Your task to perform on an android device: Search for hotels in Paris Image 0: 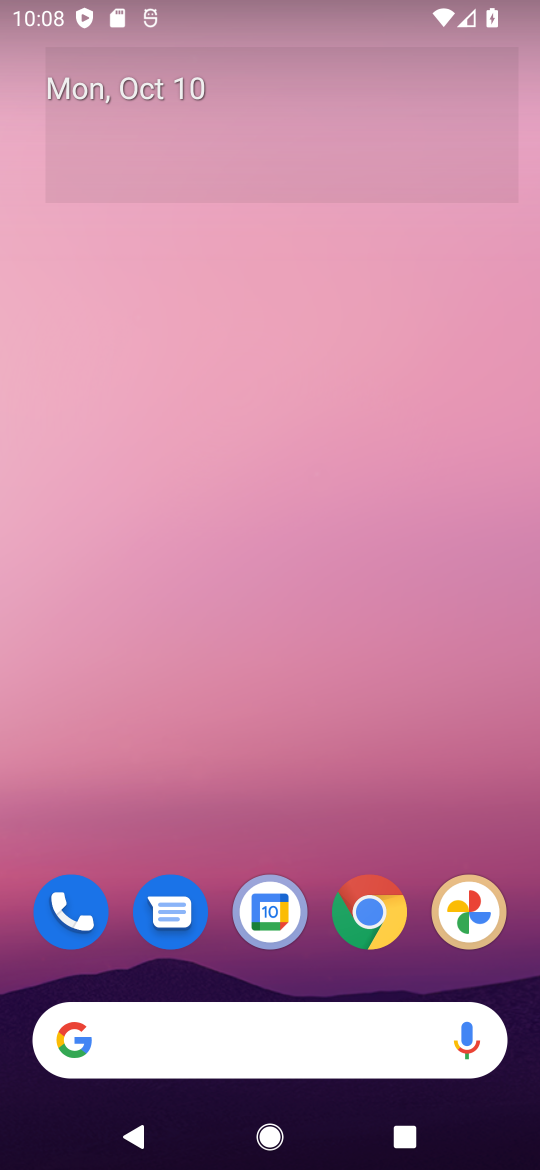
Step 0: click (365, 914)
Your task to perform on an android device: Search for hotels in Paris Image 1: 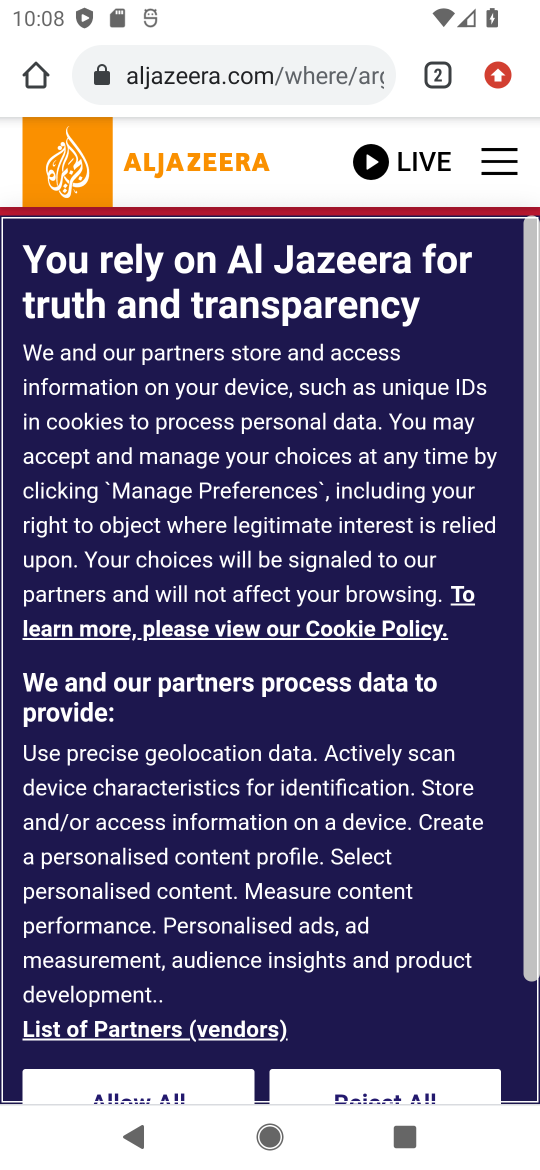
Step 1: click (296, 71)
Your task to perform on an android device: Search for hotels in Paris Image 2: 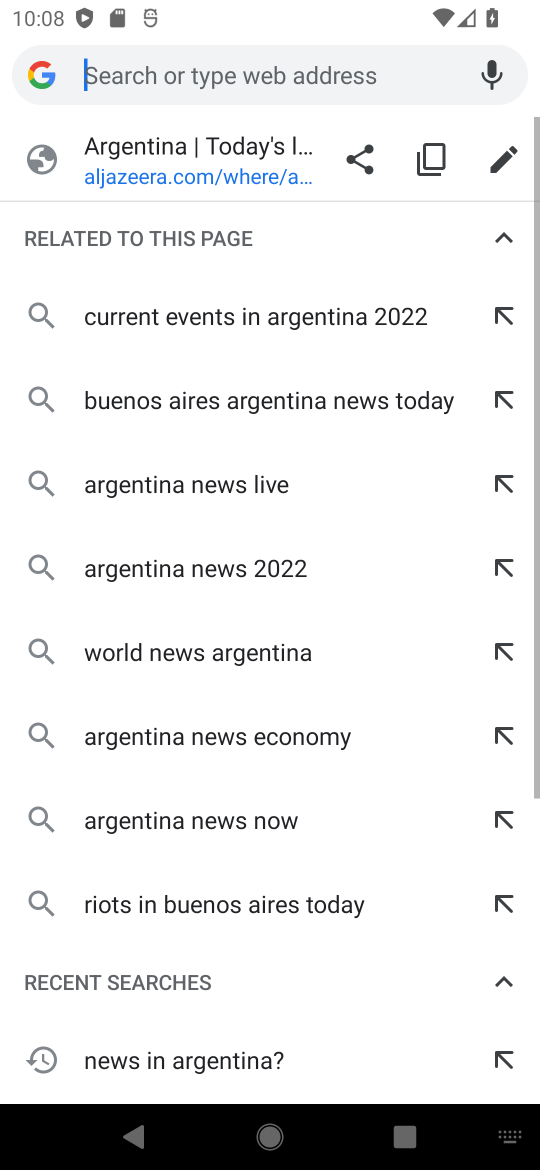
Step 2: click (364, 74)
Your task to perform on an android device: Search for hotels in Paris Image 3: 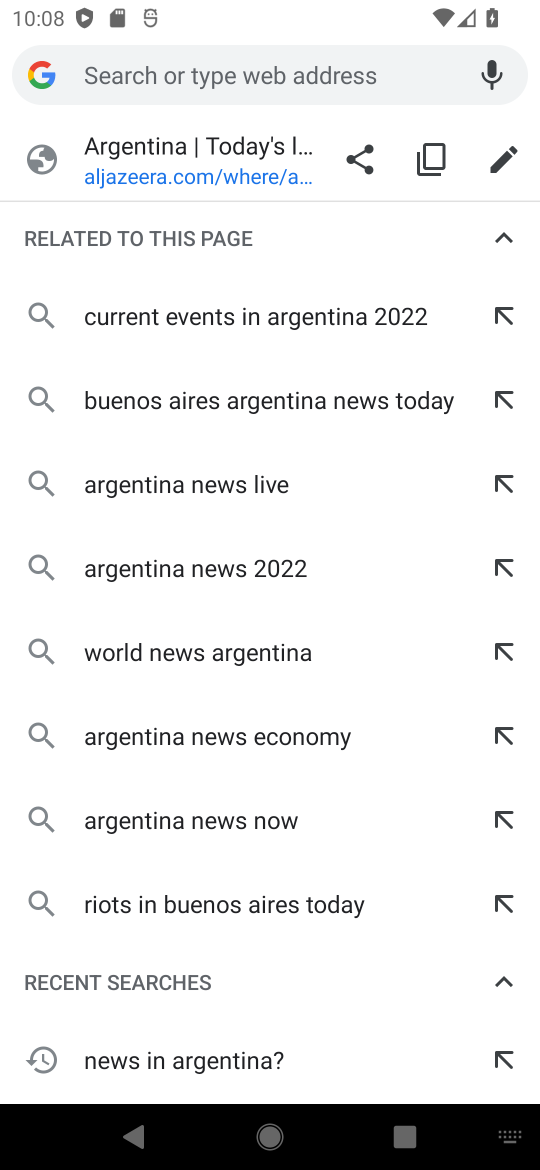
Step 3: type "hotels in paris ?"
Your task to perform on an android device: Search for hotels in Paris Image 4: 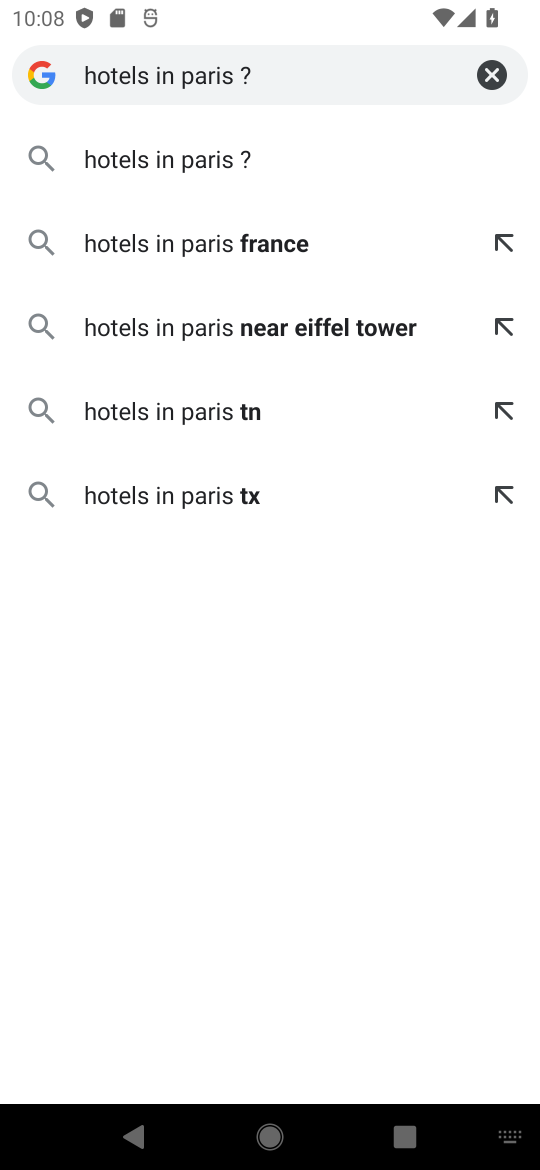
Step 4: click (166, 168)
Your task to perform on an android device: Search for hotels in Paris Image 5: 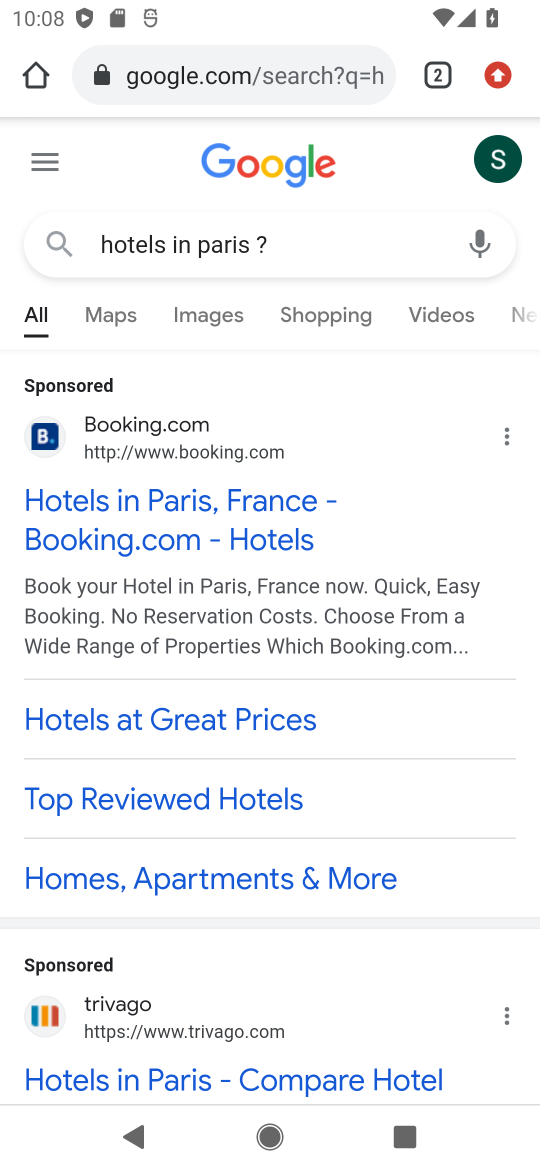
Step 5: click (217, 510)
Your task to perform on an android device: Search for hotels in Paris Image 6: 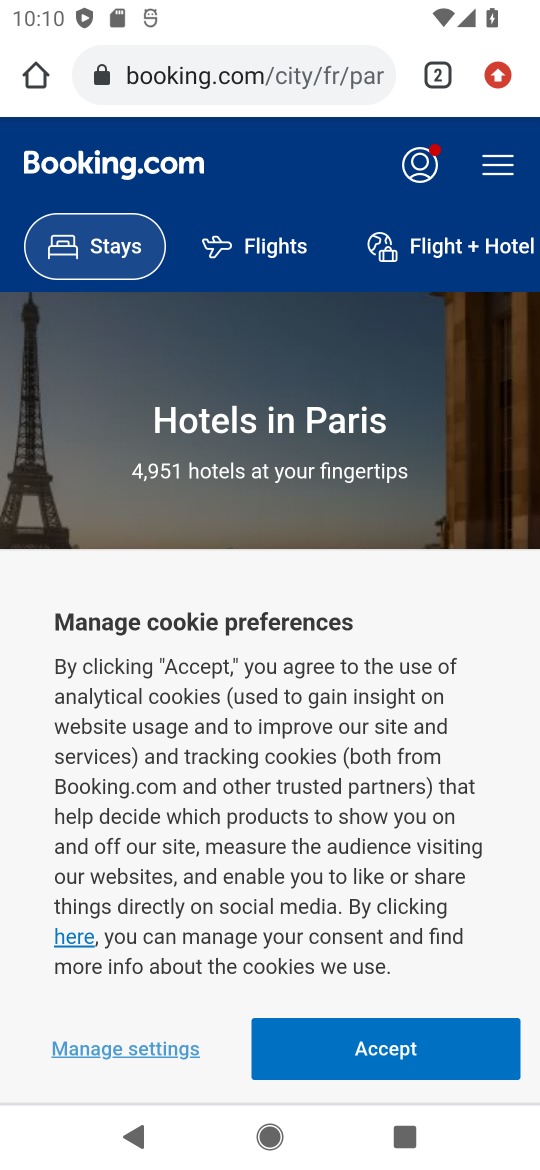
Step 6: task complete